Your task to perform on an android device: change your default location settings in chrome Image 0: 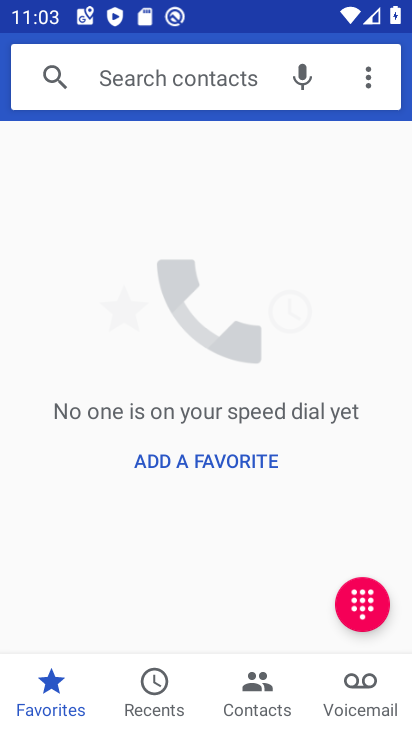
Step 0: press home button
Your task to perform on an android device: change your default location settings in chrome Image 1: 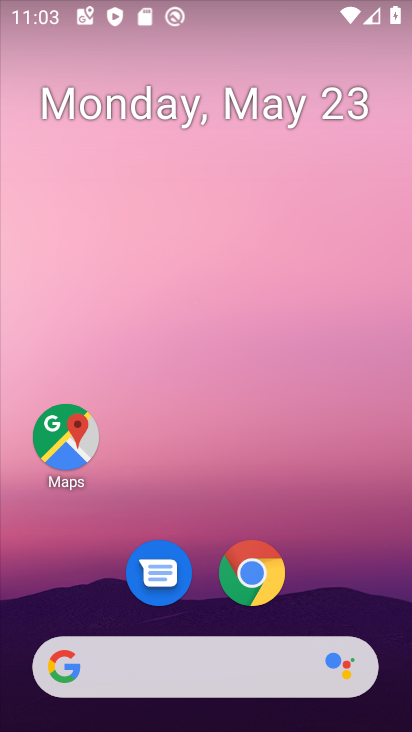
Step 1: drag from (317, 567) to (375, 165)
Your task to perform on an android device: change your default location settings in chrome Image 2: 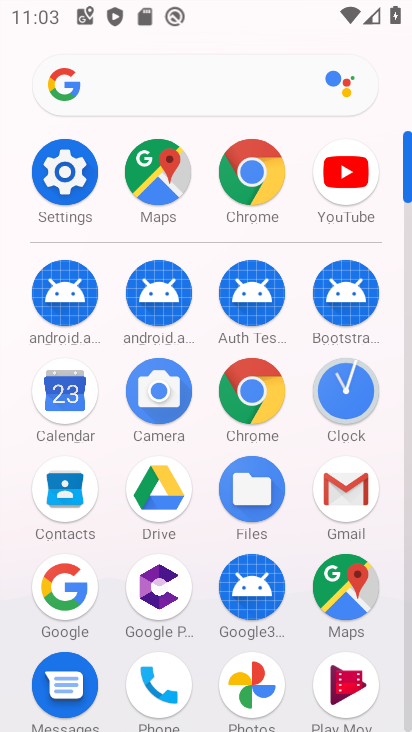
Step 2: click (250, 200)
Your task to perform on an android device: change your default location settings in chrome Image 3: 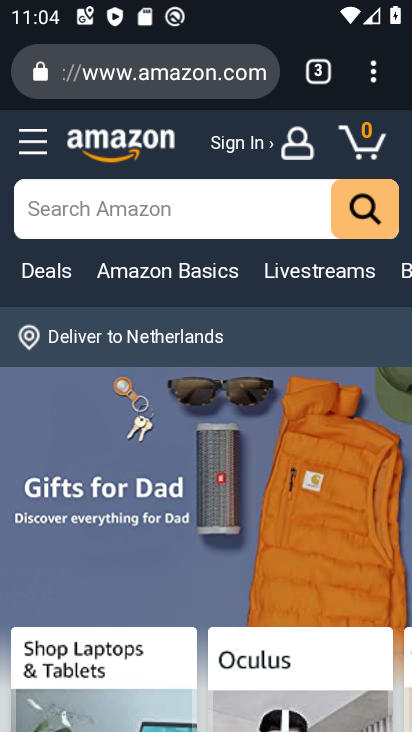
Step 3: click (375, 75)
Your task to perform on an android device: change your default location settings in chrome Image 4: 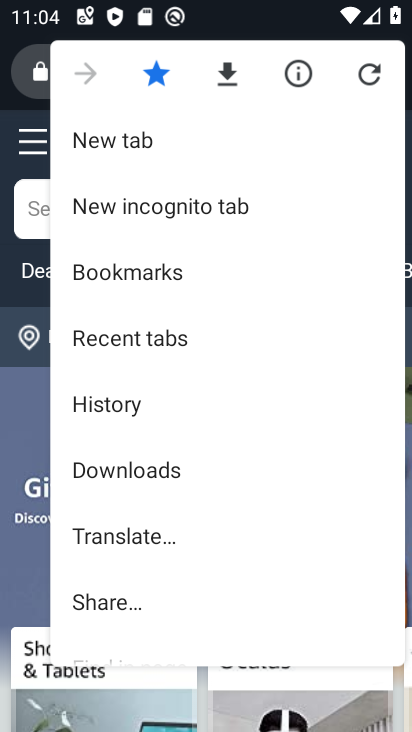
Step 4: drag from (245, 510) to (302, 264)
Your task to perform on an android device: change your default location settings in chrome Image 5: 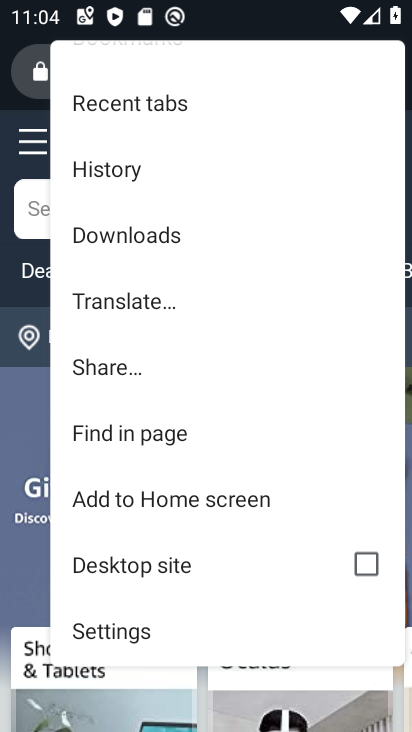
Step 5: drag from (204, 578) to (300, 235)
Your task to perform on an android device: change your default location settings in chrome Image 6: 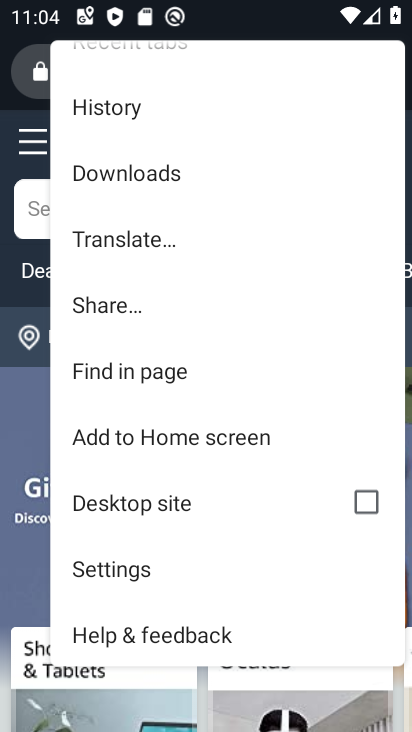
Step 6: click (173, 570)
Your task to perform on an android device: change your default location settings in chrome Image 7: 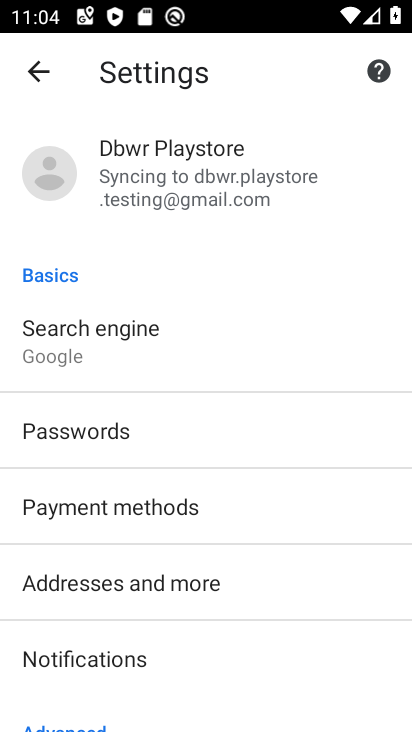
Step 7: drag from (173, 570) to (232, 230)
Your task to perform on an android device: change your default location settings in chrome Image 8: 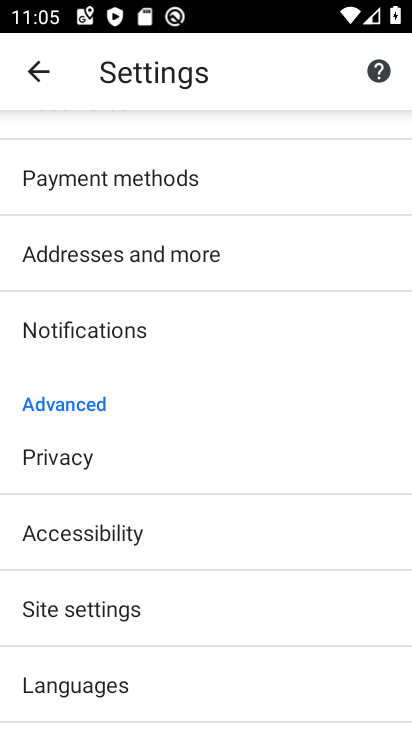
Step 8: click (117, 604)
Your task to perform on an android device: change your default location settings in chrome Image 9: 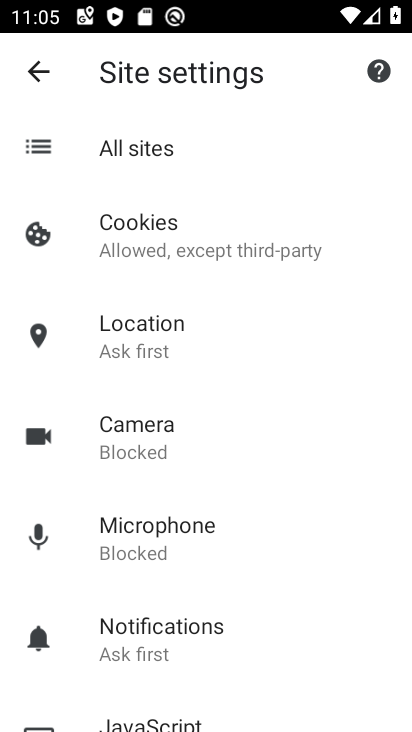
Step 9: click (194, 333)
Your task to perform on an android device: change your default location settings in chrome Image 10: 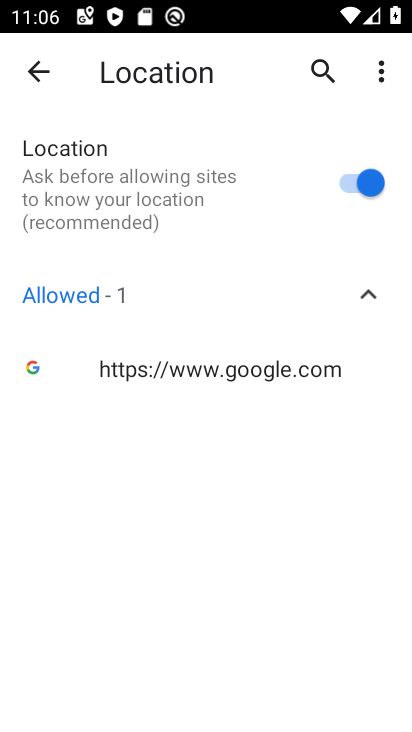
Step 10: click (337, 203)
Your task to perform on an android device: change your default location settings in chrome Image 11: 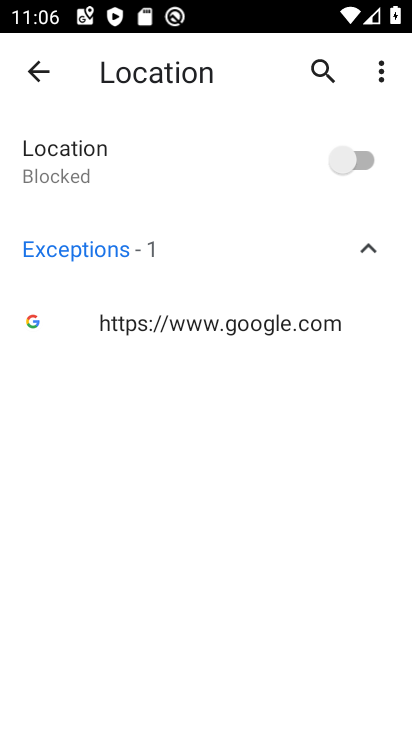
Step 11: task complete